Your task to perform on an android device: Open calendar and show me the first week of next month Image 0: 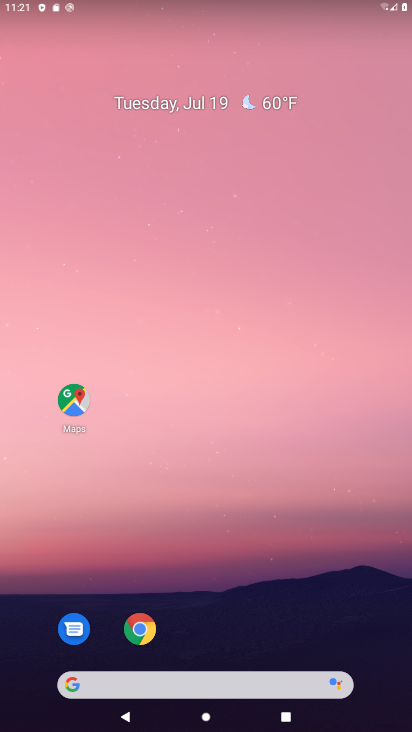
Step 0: drag from (217, 625) to (264, 0)
Your task to perform on an android device: Open calendar and show me the first week of next month Image 1: 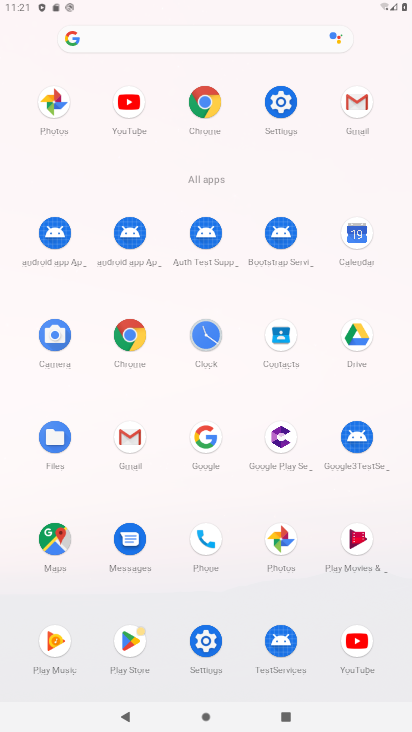
Step 1: click (358, 241)
Your task to perform on an android device: Open calendar and show me the first week of next month Image 2: 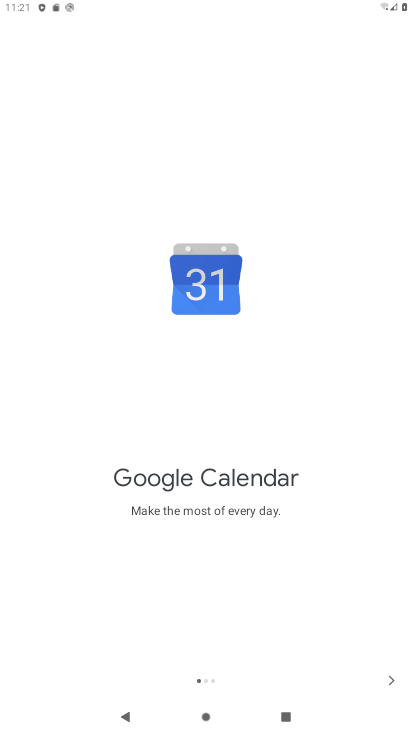
Step 2: click (391, 674)
Your task to perform on an android device: Open calendar and show me the first week of next month Image 3: 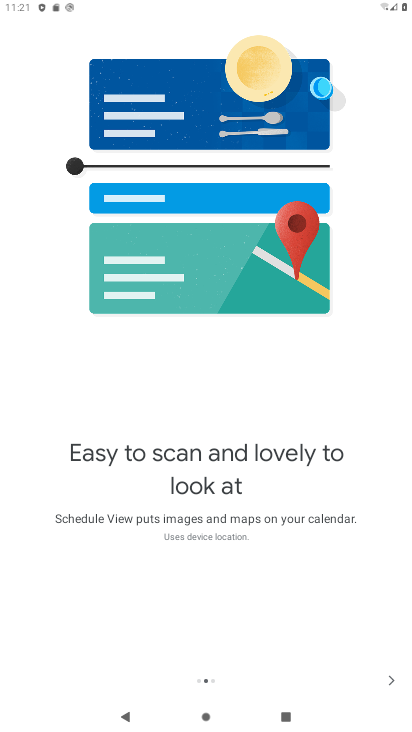
Step 3: click (391, 674)
Your task to perform on an android device: Open calendar and show me the first week of next month Image 4: 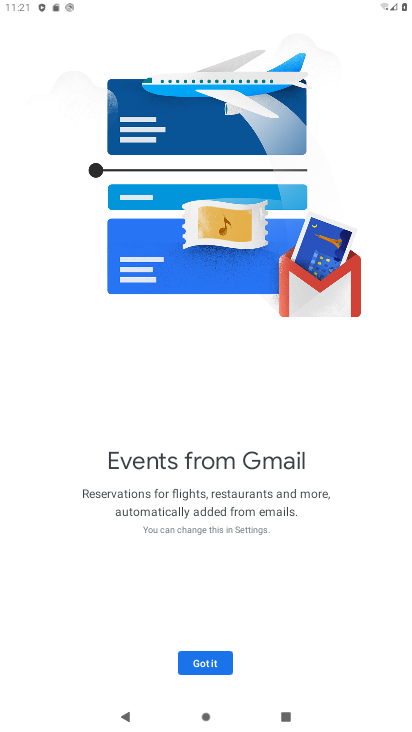
Step 4: click (216, 665)
Your task to perform on an android device: Open calendar and show me the first week of next month Image 5: 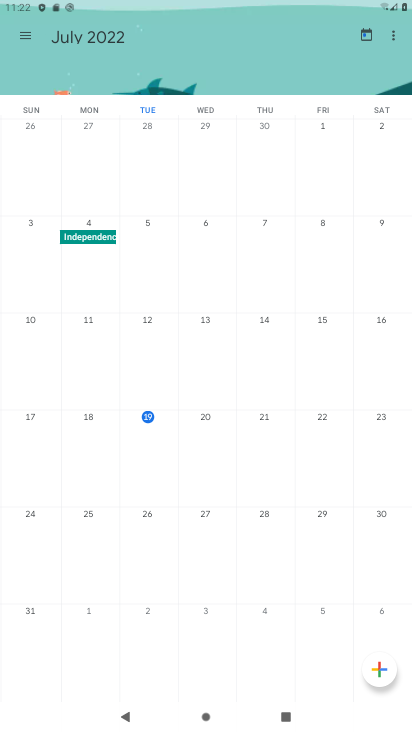
Step 5: drag from (408, 391) to (29, 373)
Your task to perform on an android device: Open calendar and show me the first week of next month Image 6: 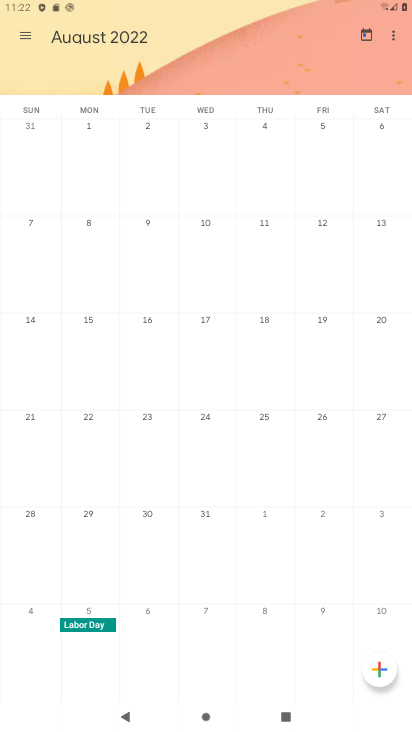
Step 6: click (88, 136)
Your task to perform on an android device: Open calendar and show me the first week of next month Image 7: 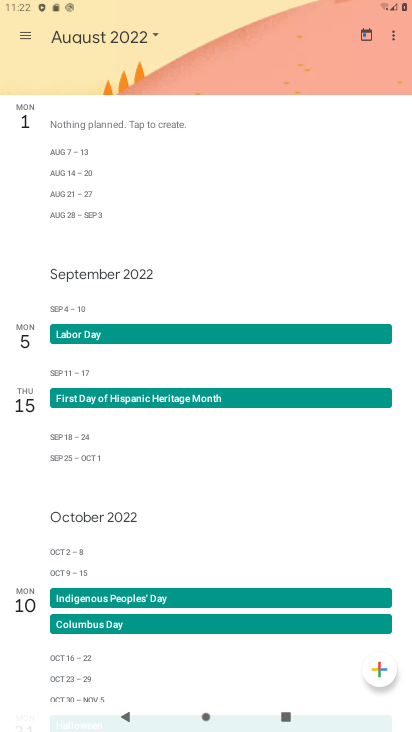
Step 7: task complete